Your task to perform on an android device: change the clock display to digital Image 0: 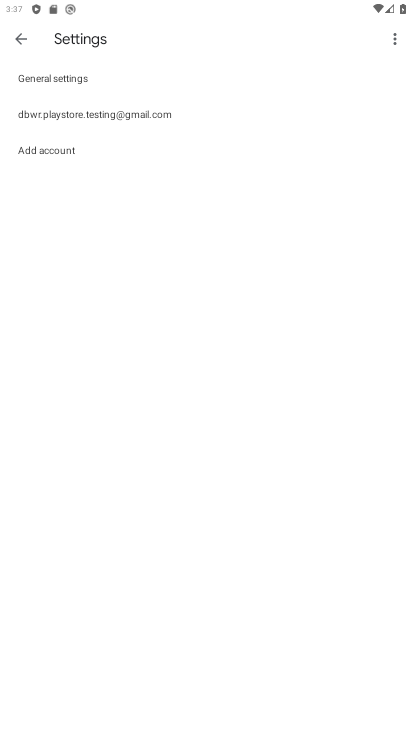
Step 0: press home button
Your task to perform on an android device: change the clock display to digital Image 1: 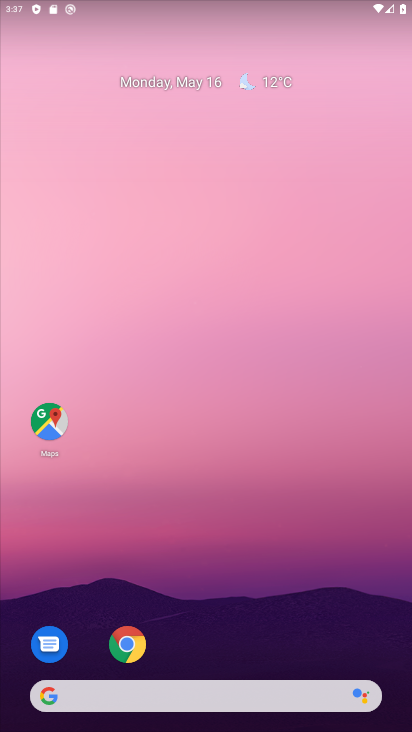
Step 1: drag from (244, 503) to (195, 62)
Your task to perform on an android device: change the clock display to digital Image 2: 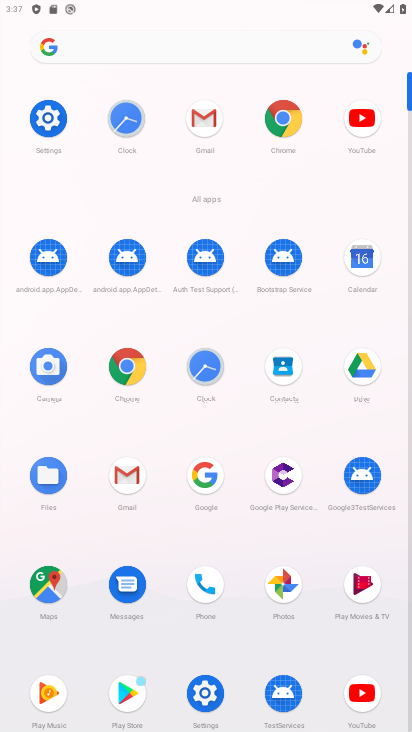
Step 2: click (133, 117)
Your task to perform on an android device: change the clock display to digital Image 3: 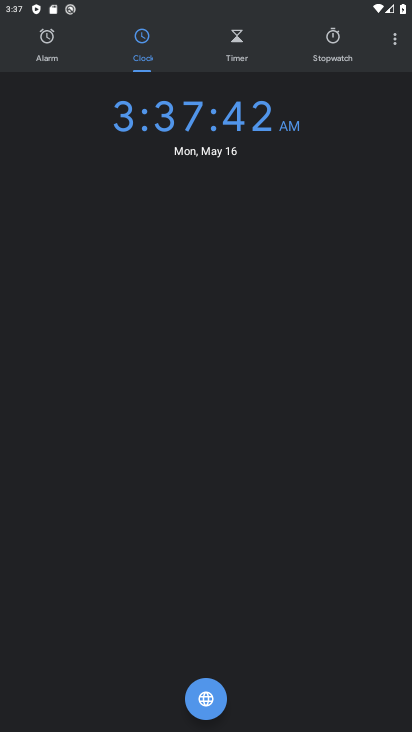
Step 3: click (393, 41)
Your task to perform on an android device: change the clock display to digital Image 4: 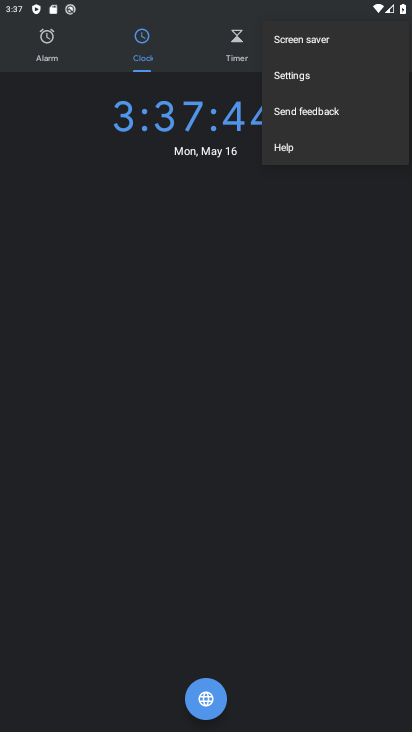
Step 4: click (323, 82)
Your task to perform on an android device: change the clock display to digital Image 5: 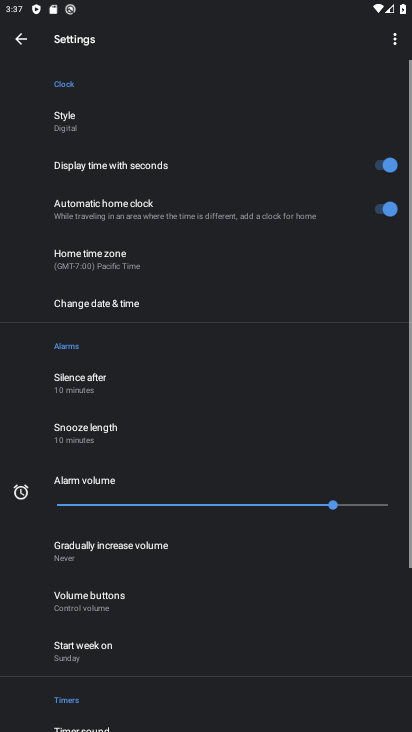
Step 5: click (87, 118)
Your task to perform on an android device: change the clock display to digital Image 6: 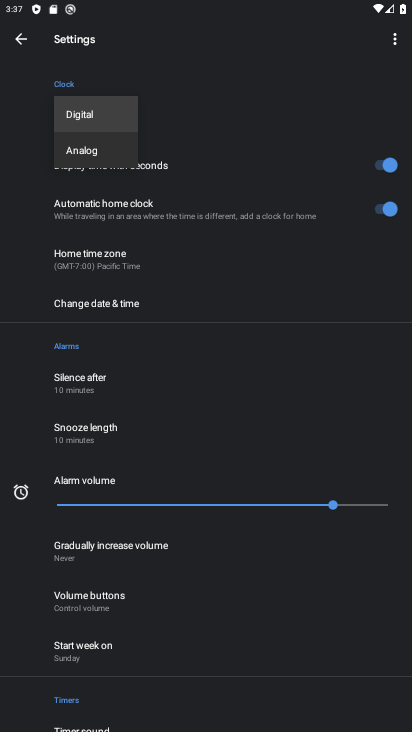
Step 6: task complete